Your task to perform on an android device: open a new tab in the chrome app Image 0: 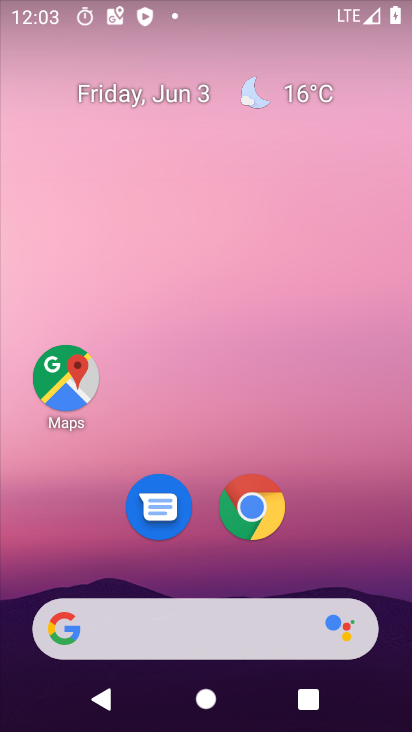
Step 0: drag from (379, 634) to (259, 48)
Your task to perform on an android device: open a new tab in the chrome app Image 1: 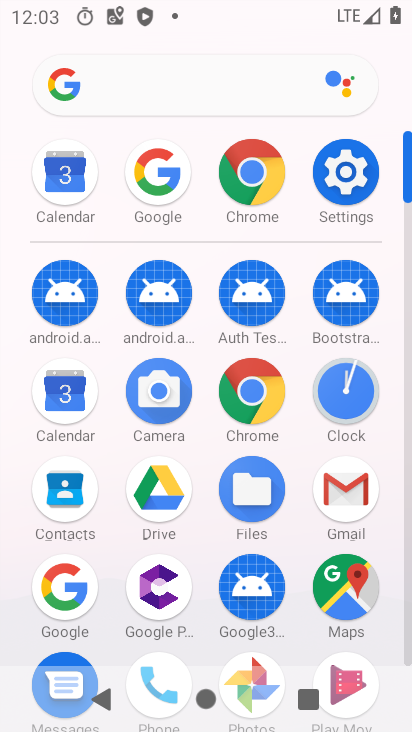
Step 1: click (249, 146)
Your task to perform on an android device: open a new tab in the chrome app Image 2: 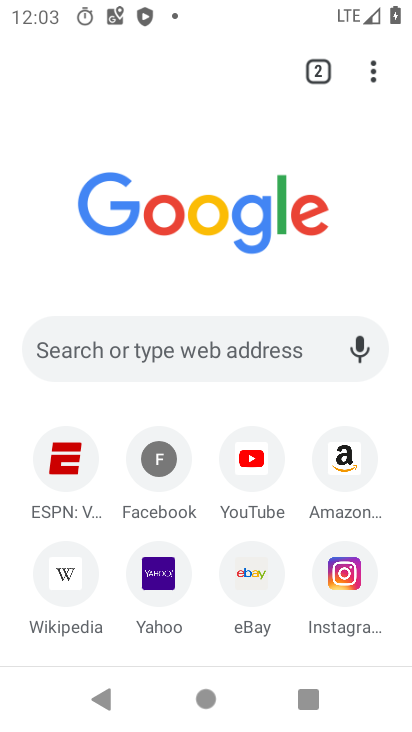
Step 2: click (373, 69)
Your task to perform on an android device: open a new tab in the chrome app Image 3: 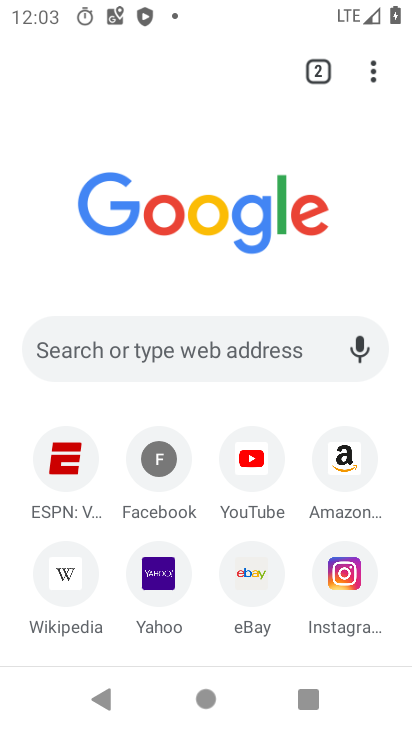
Step 3: click (372, 61)
Your task to perform on an android device: open a new tab in the chrome app Image 4: 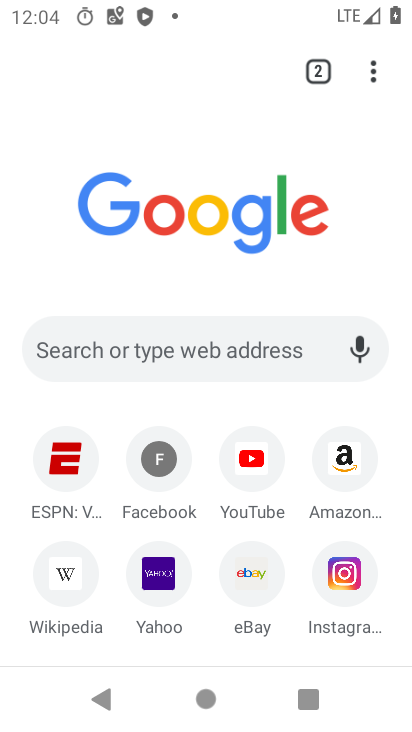
Step 4: click (378, 62)
Your task to perform on an android device: open a new tab in the chrome app Image 5: 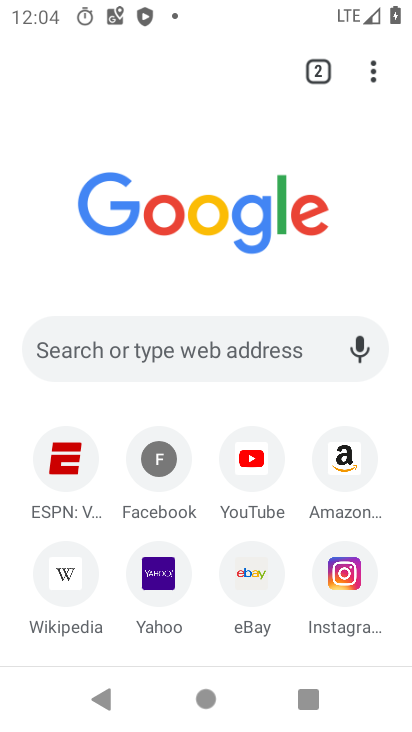
Step 5: click (380, 63)
Your task to perform on an android device: open a new tab in the chrome app Image 6: 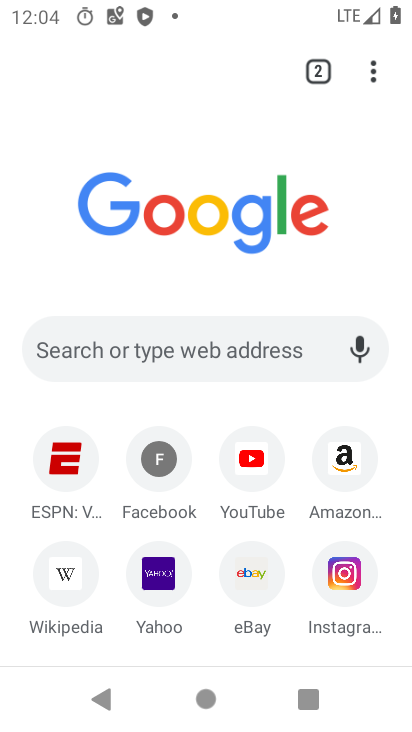
Step 6: click (368, 71)
Your task to perform on an android device: open a new tab in the chrome app Image 7: 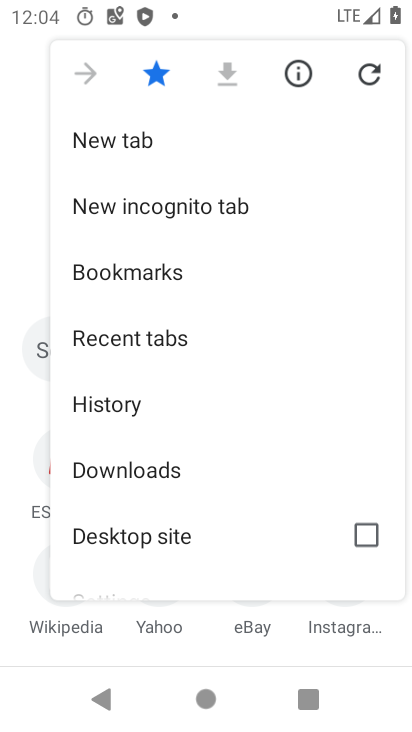
Step 7: click (164, 138)
Your task to perform on an android device: open a new tab in the chrome app Image 8: 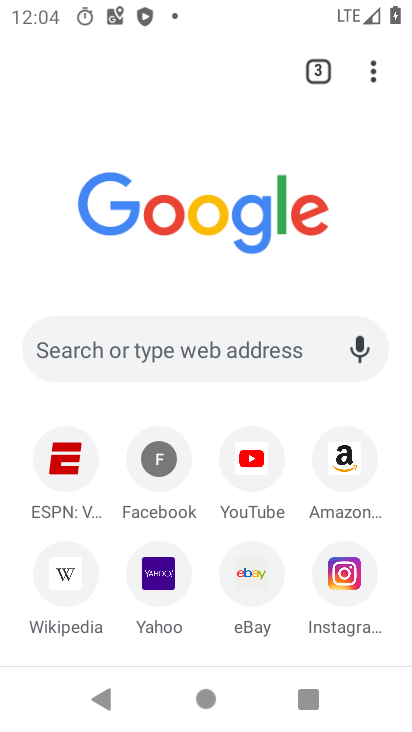
Step 8: task complete